Your task to perform on an android device: Open Android settings Image 0: 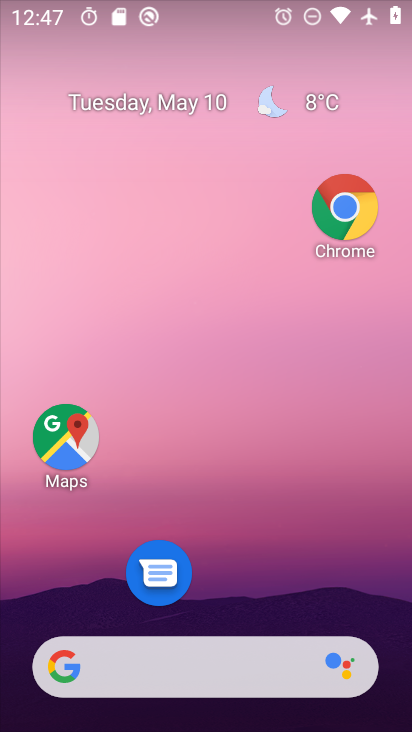
Step 0: drag from (322, 577) to (201, 94)
Your task to perform on an android device: Open Android settings Image 1: 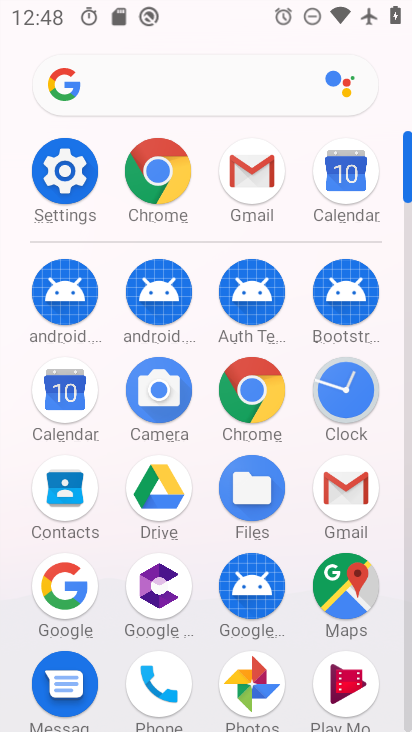
Step 1: click (70, 178)
Your task to perform on an android device: Open Android settings Image 2: 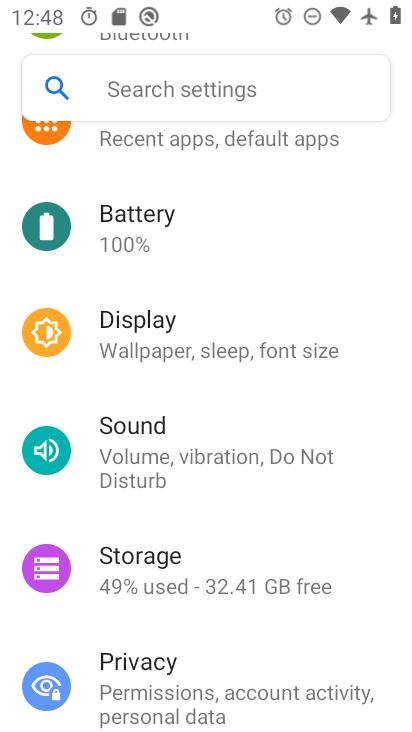
Step 2: task complete